Your task to perform on an android device: Clear the shopping cart on costco.com. Image 0: 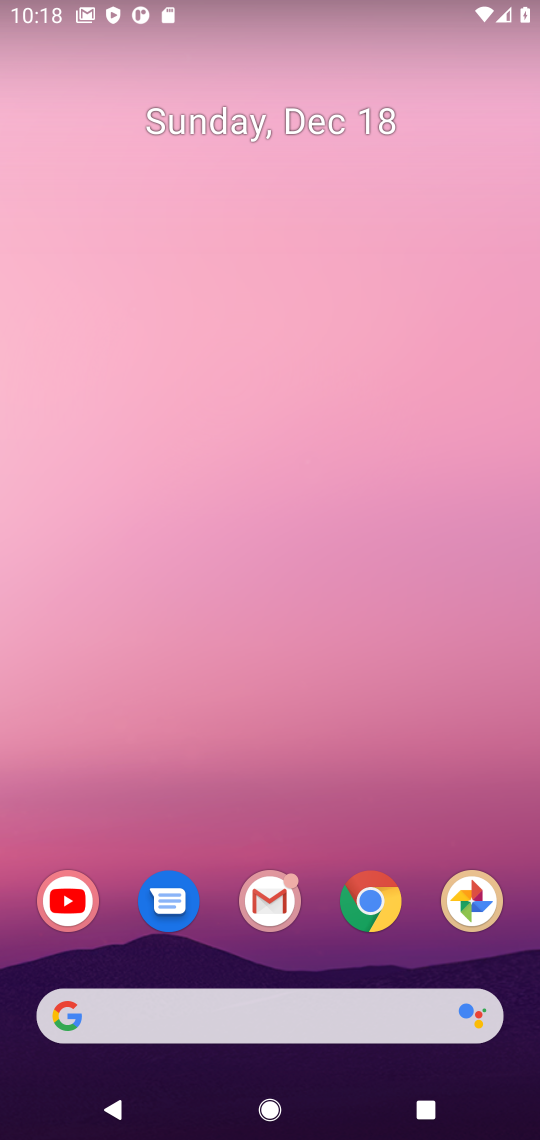
Step 0: click (378, 885)
Your task to perform on an android device: Clear the shopping cart on costco.com. Image 1: 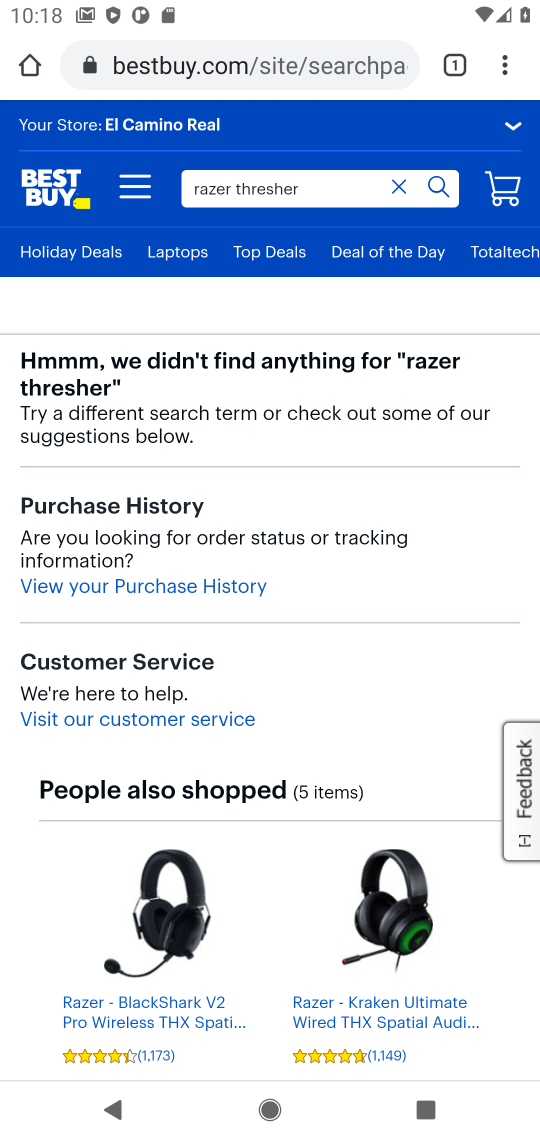
Step 1: click (320, 85)
Your task to perform on an android device: Clear the shopping cart on costco.com. Image 2: 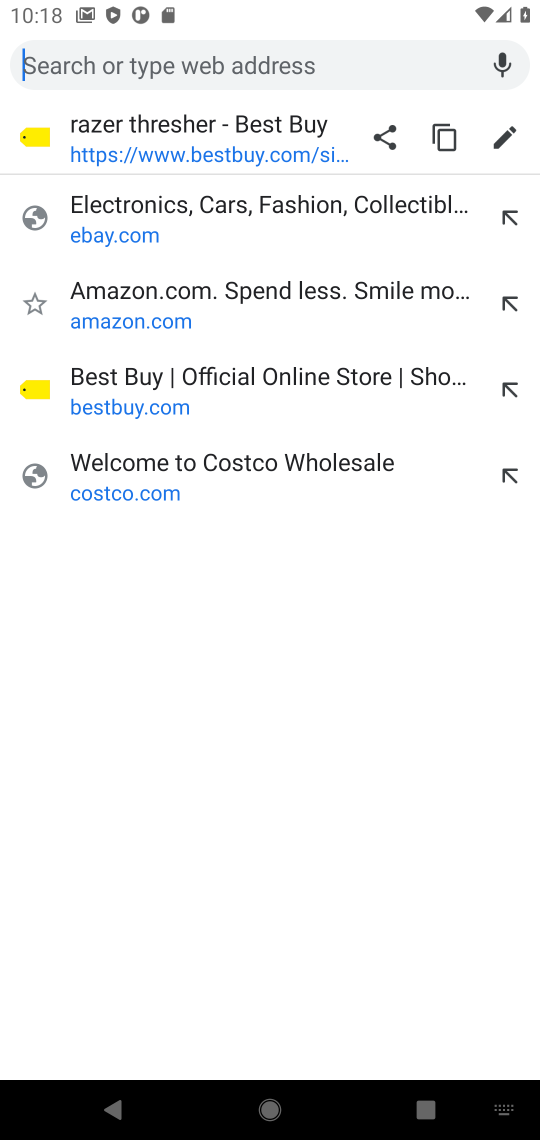
Step 2: type "costco"
Your task to perform on an android device: Clear the shopping cart on costco.com. Image 3: 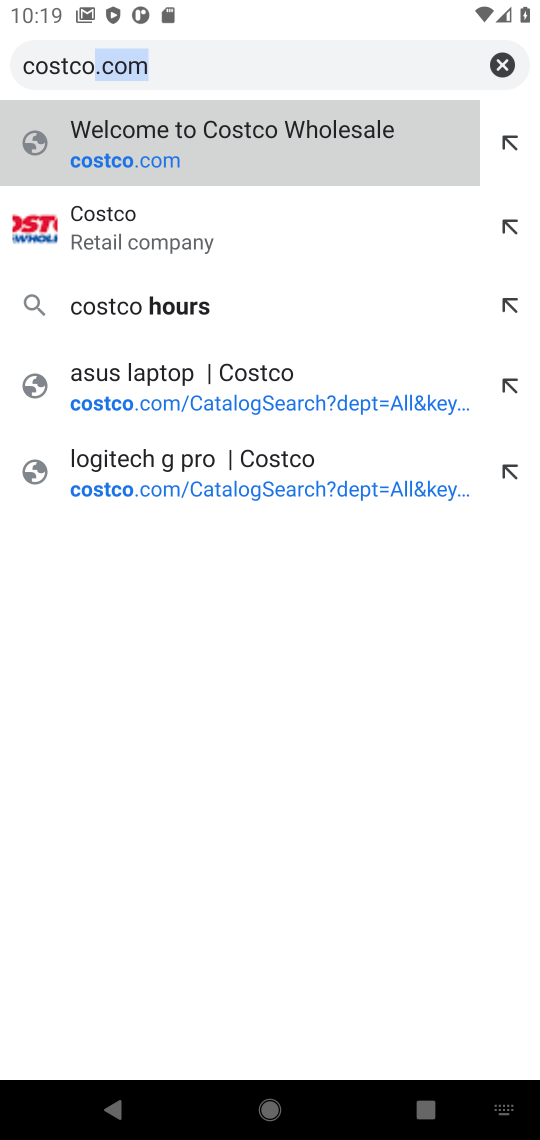
Step 3: click (239, 137)
Your task to perform on an android device: Clear the shopping cart on costco.com. Image 4: 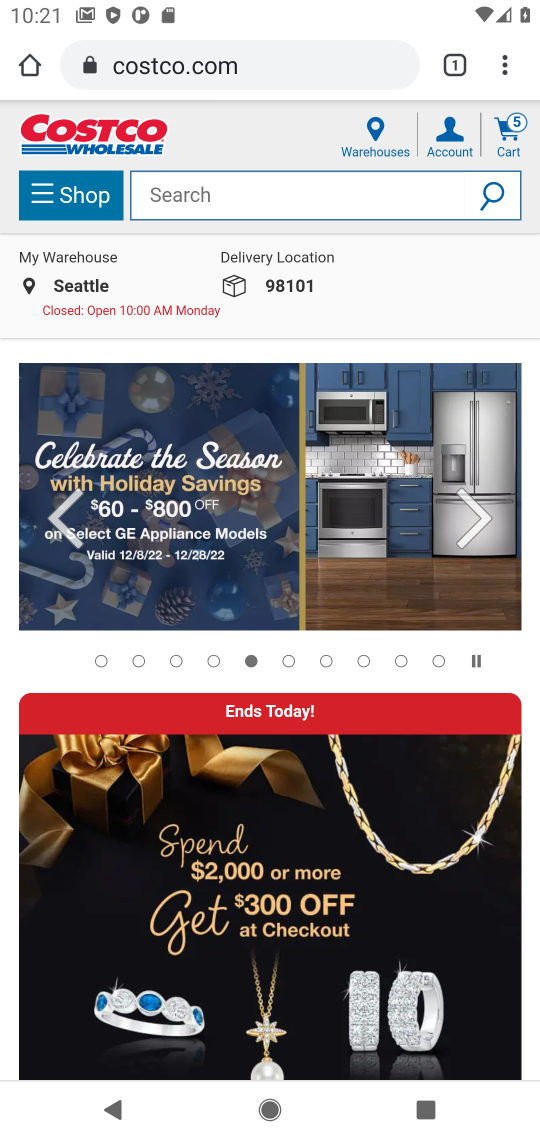
Step 4: click (519, 139)
Your task to perform on an android device: Clear the shopping cart on costco.com. Image 5: 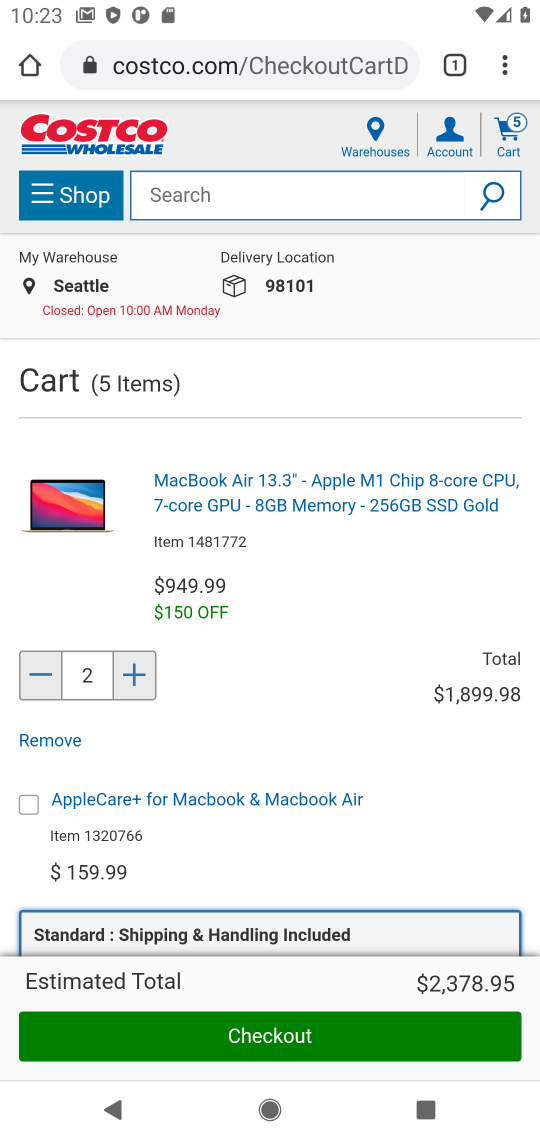
Step 5: click (48, 728)
Your task to perform on an android device: Clear the shopping cart on costco.com. Image 6: 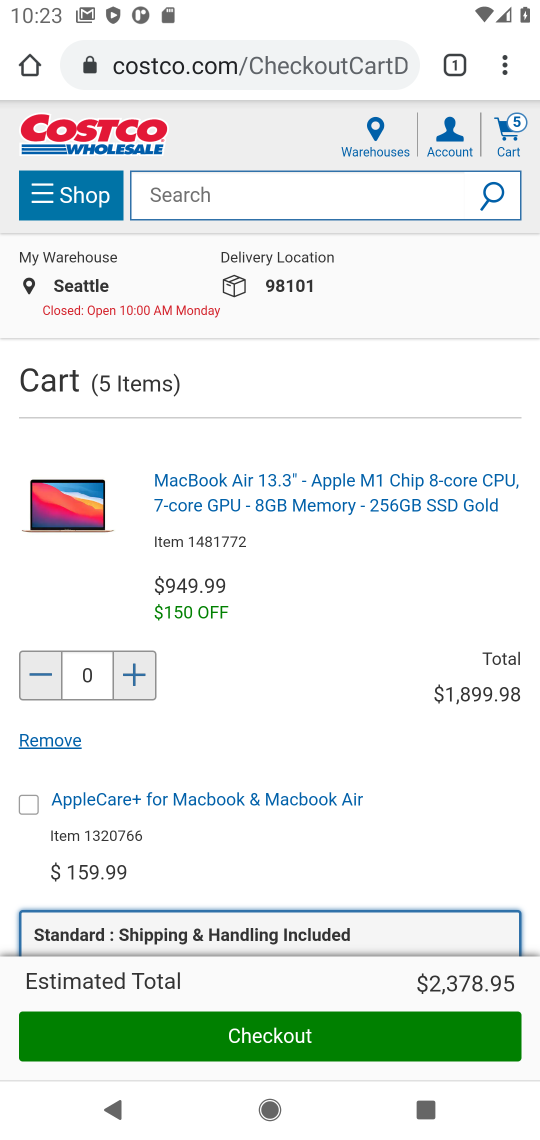
Step 6: click (40, 746)
Your task to perform on an android device: Clear the shopping cart on costco.com. Image 7: 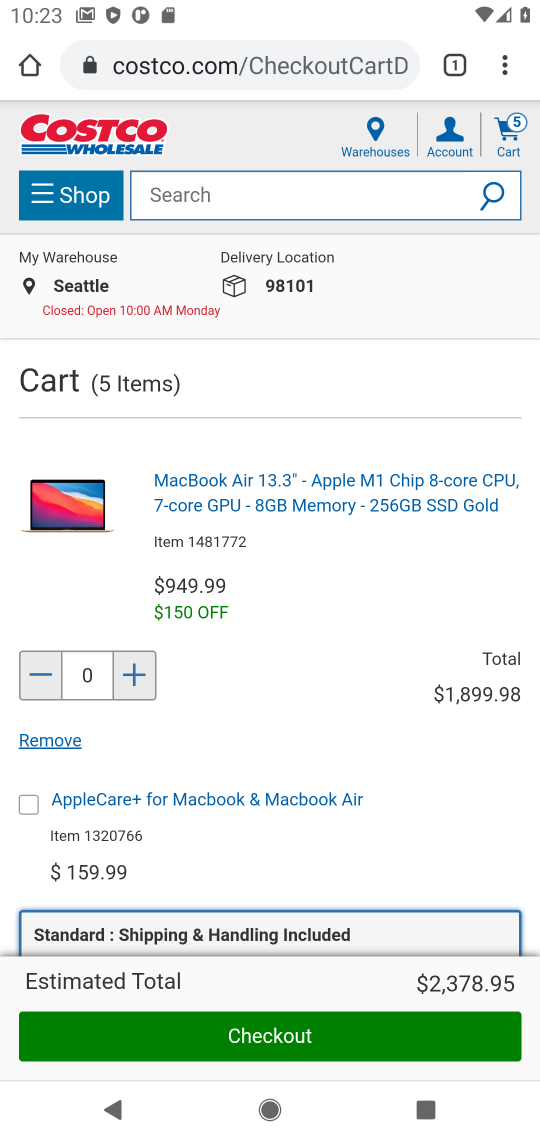
Step 7: click (40, 746)
Your task to perform on an android device: Clear the shopping cart on costco.com. Image 8: 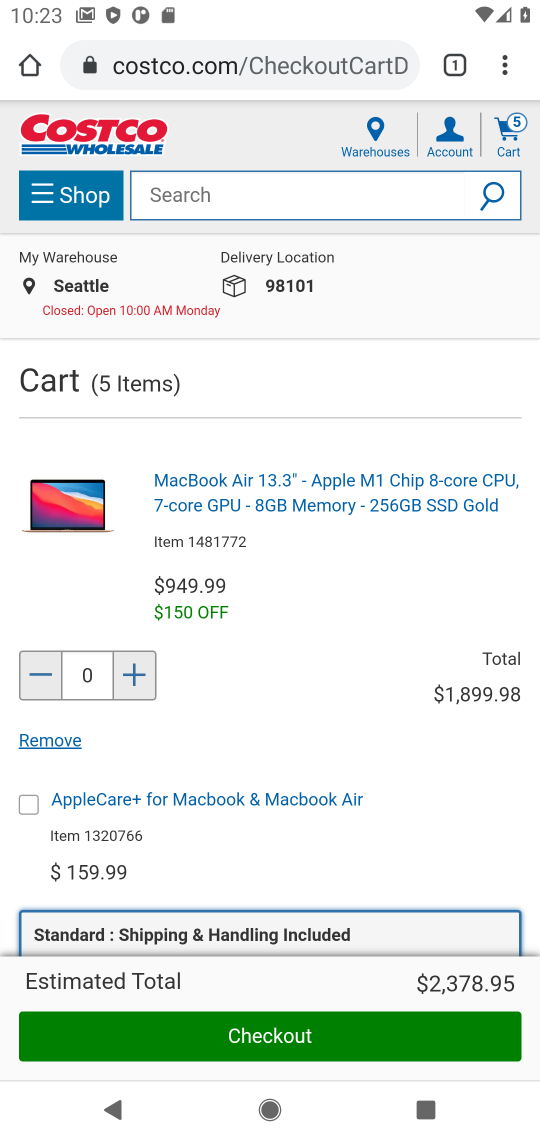
Step 8: click (40, 746)
Your task to perform on an android device: Clear the shopping cart on costco.com. Image 9: 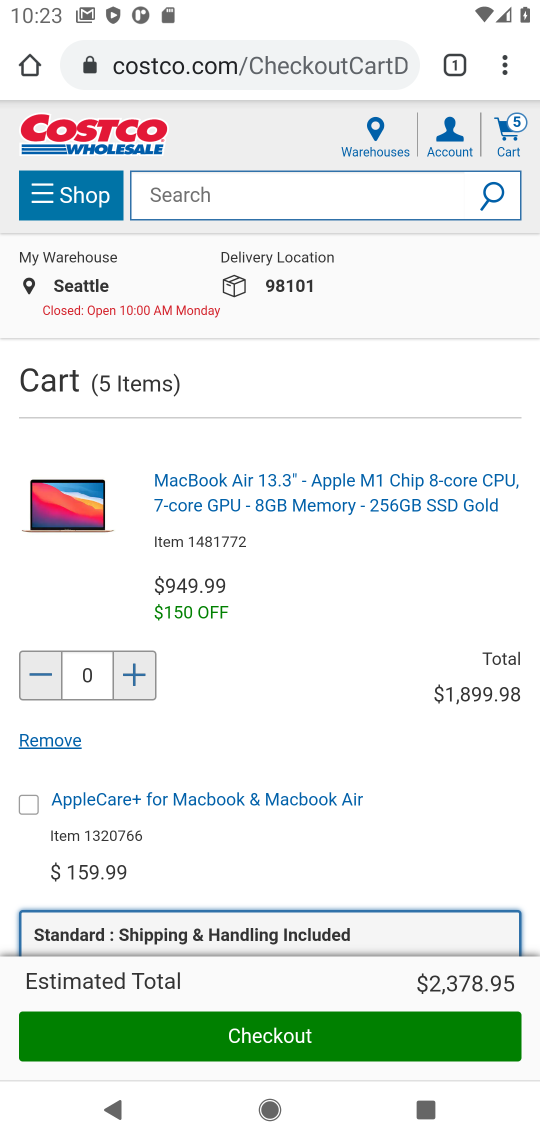
Step 9: task complete